Your task to perform on an android device: Empty the shopping cart on target. Search for "logitech g pro" on target, select the first entry, and add it to the cart. Image 0: 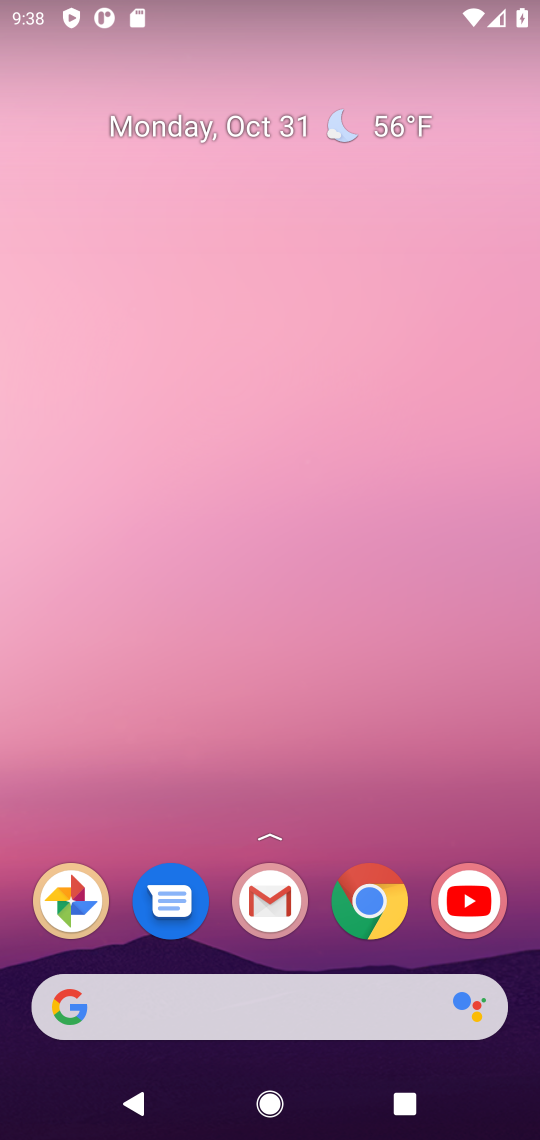
Step 0: drag from (330, 707) to (330, 245)
Your task to perform on an android device: Empty the shopping cart on target. Search for "logitech g pro" on target, select the first entry, and add it to the cart. Image 1: 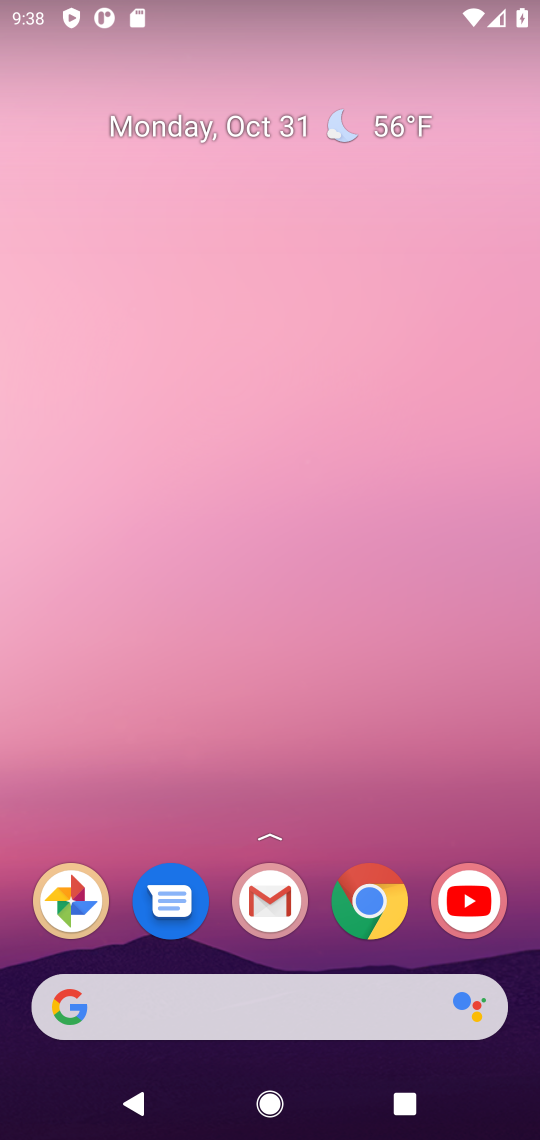
Step 1: drag from (275, 831) to (267, 108)
Your task to perform on an android device: Empty the shopping cart on target. Search for "logitech g pro" on target, select the first entry, and add it to the cart. Image 2: 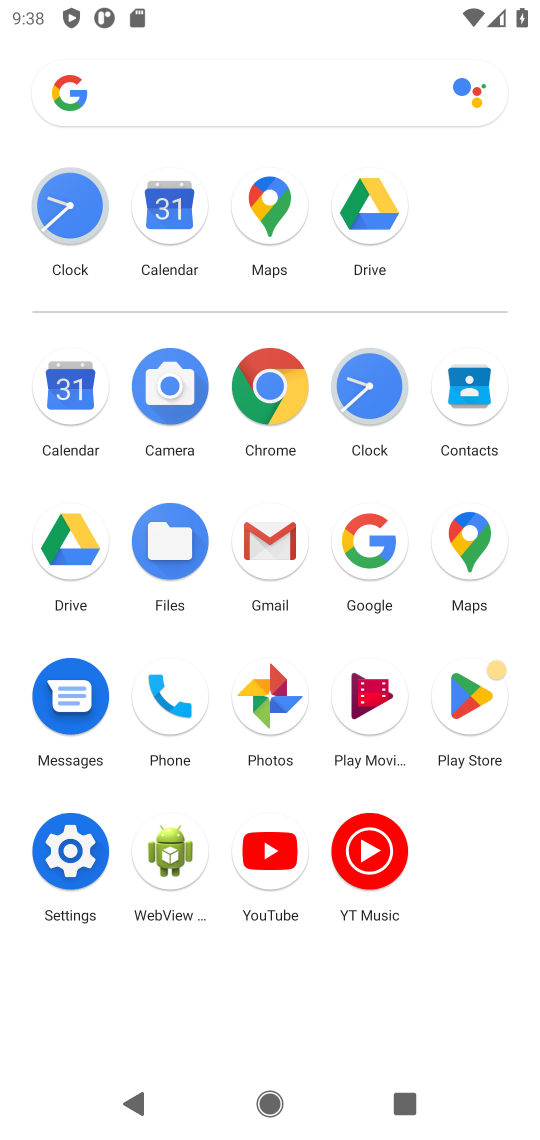
Step 2: click (355, 548)
Your task to perform on an android device: Empty the shopping cart on target. Search for "logitech g pro" on target, select the first entry, and add it to the cart. Image 3: 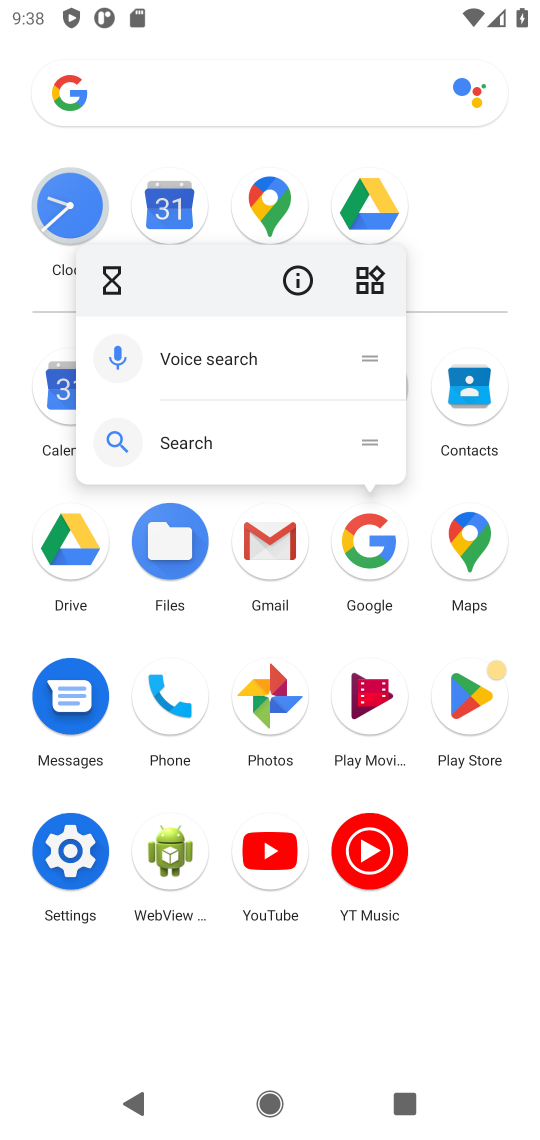
Step 3: click (357, 534)
Your task to perform on an android device: Empty the shopping cart on target. Search for "logitech g pro" on target, select the first entry, and add it to the cart. Image 4: 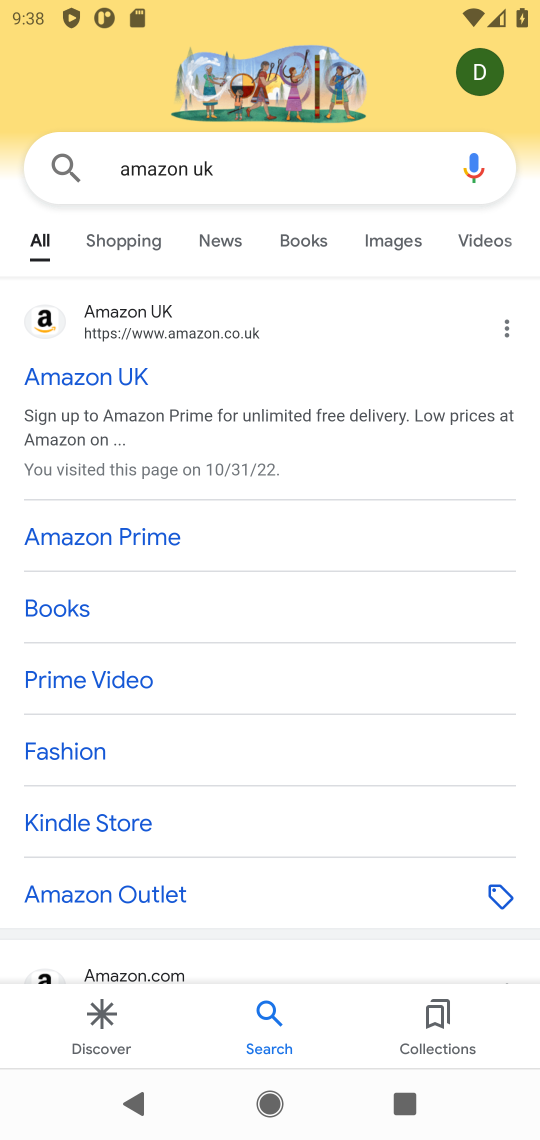
Step 4: click (357, 167)
Your task to perform on an android device: Empty the shopping cart on target. Search for "logitech g pro" on target, select the first entry, and add it to the cart. Image 5: 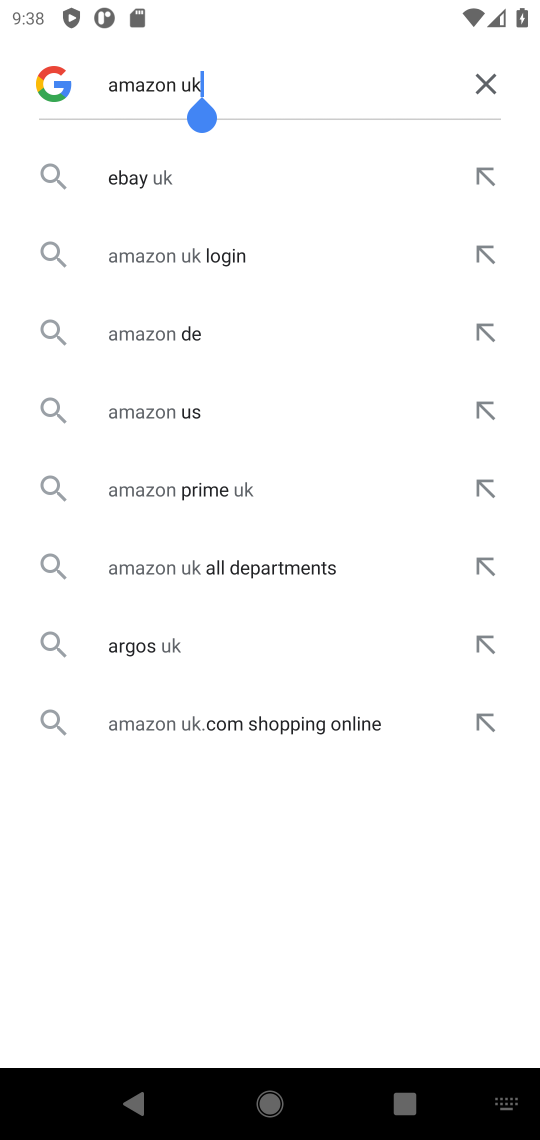
Step 5: click (480, 80)
Your task to perform on an android device: Empty the shopping cart on target. Search for "logitech g pro" on target, select the first entry, and add it to the cart. Image 6: 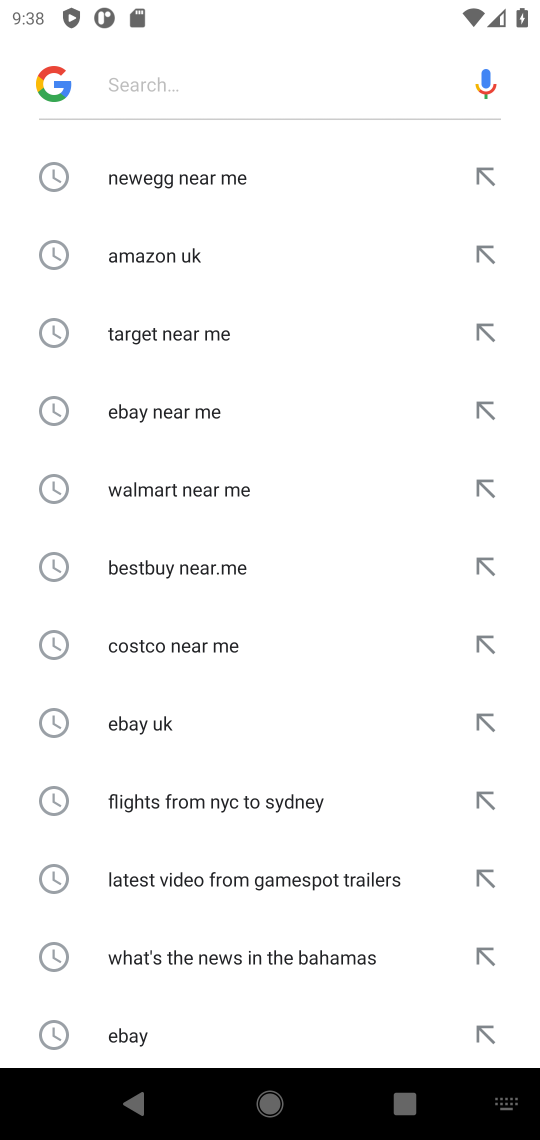
Step 6: click (138, 76)
Your task to perform on an android device: Empty the shopping cart on target. Search for "logitech g pro" on target, select the first entry, and add it to the cart. Image 7: 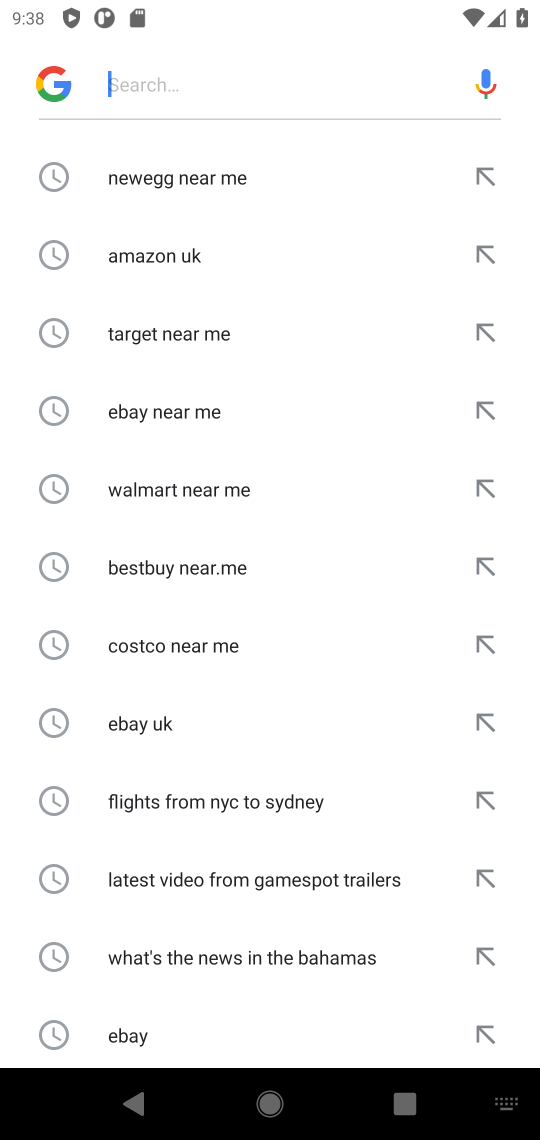
Step 7: type "target "
Your task to perform on an android device: Empty the shopping cart on target. Search for "logitech g pro" on target, select the first entry, and add it to the cart. Image 8: 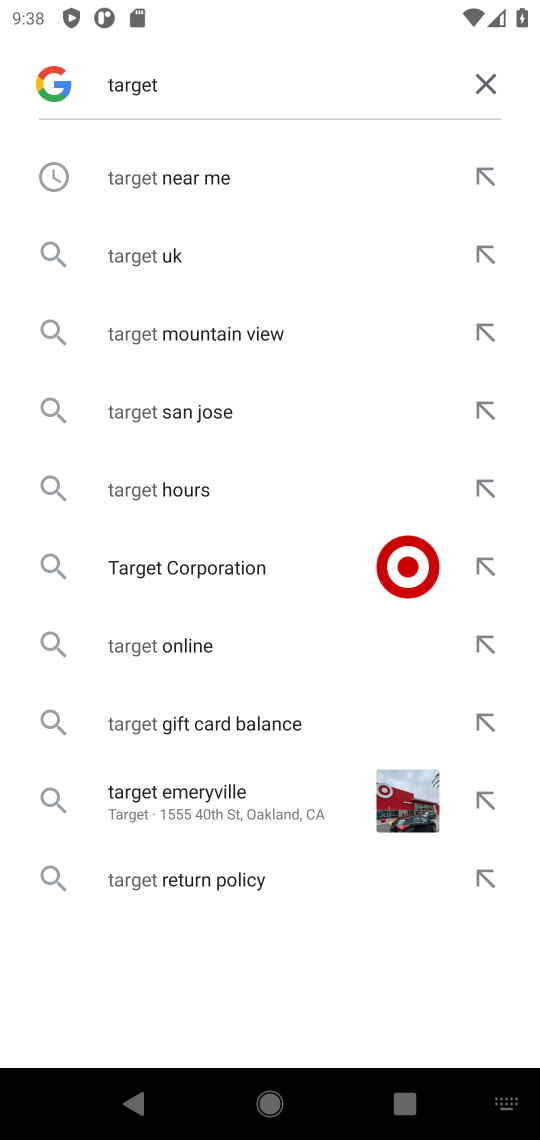
Step 8: click (164, 258)
Your task to perform on an android device: Empty the shopping cart on target. Search for "logitech g pro" on target, select the first entry, and add it to the cart. Image 9: 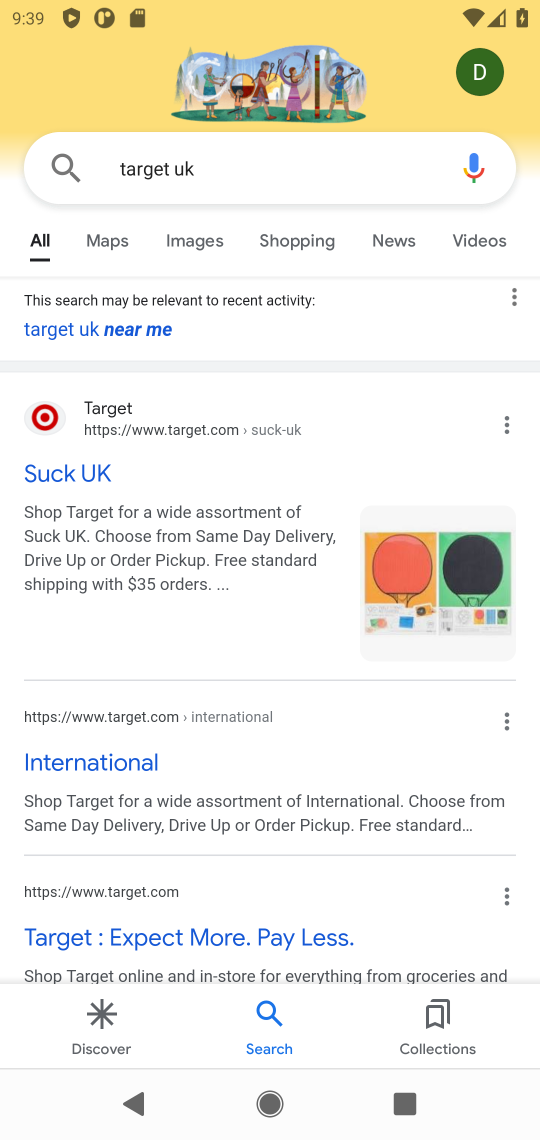
Step 9: click (43, 414)
Your task to perform on an android device: Empty the shopping cart on target. Search for "logitech g pro" on target, select the first entry, and add it to the cart. Image 10: 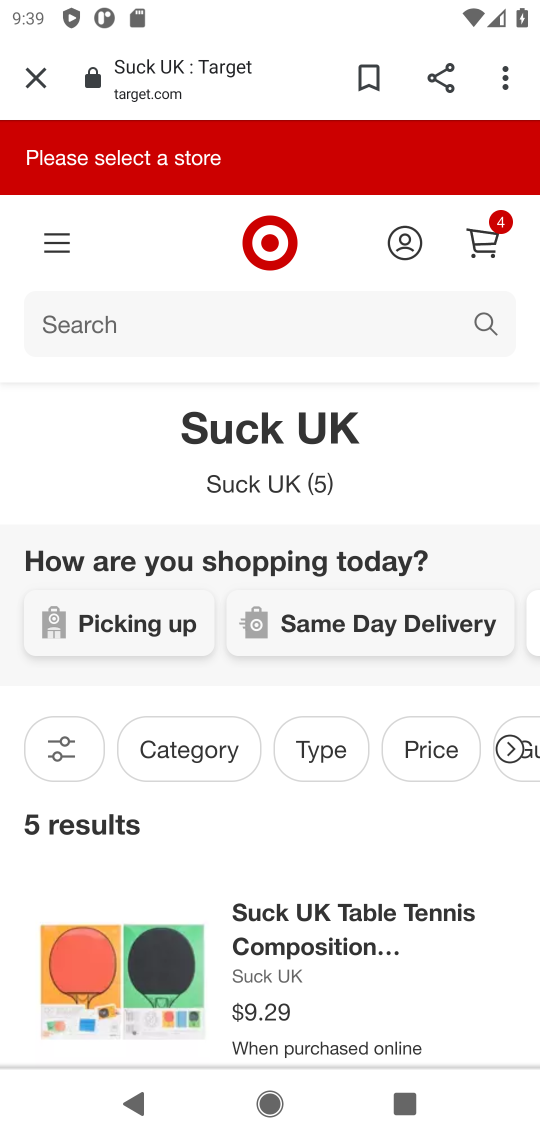
Step 10: click (155, 305)
Your task to perform on an android device: Empty the shopping cart on target. Search for "logitech g pro" on target, select the first entry, and add it to the cart. Image 11: 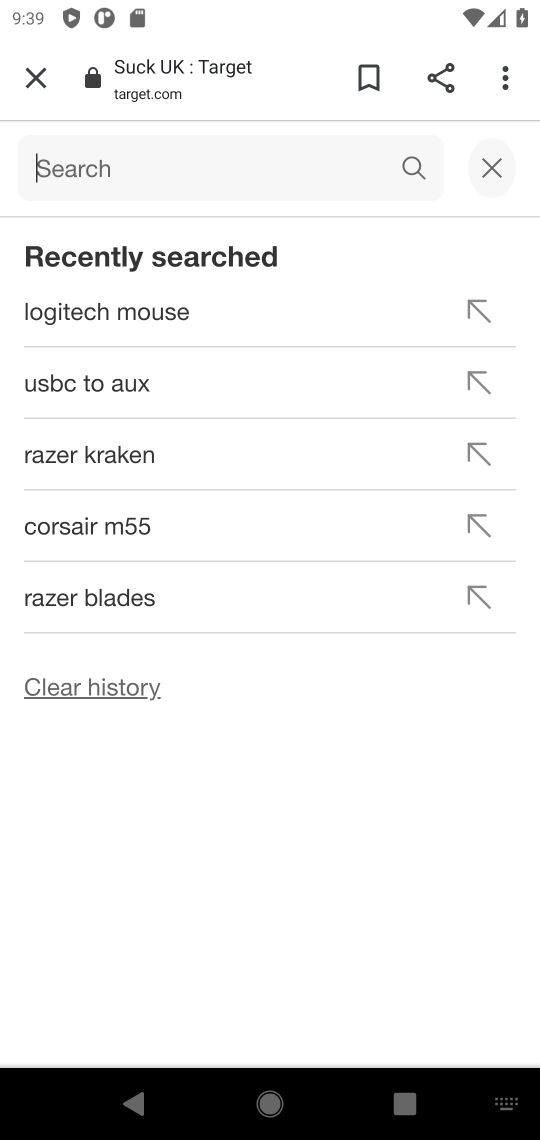
Step 11: type "logitech g pro "
Your task to perform on an android device: Empty the shopping cart on target. Search for "logitech g pro" on target, select the first entry, and add it to the cart. Image 12: 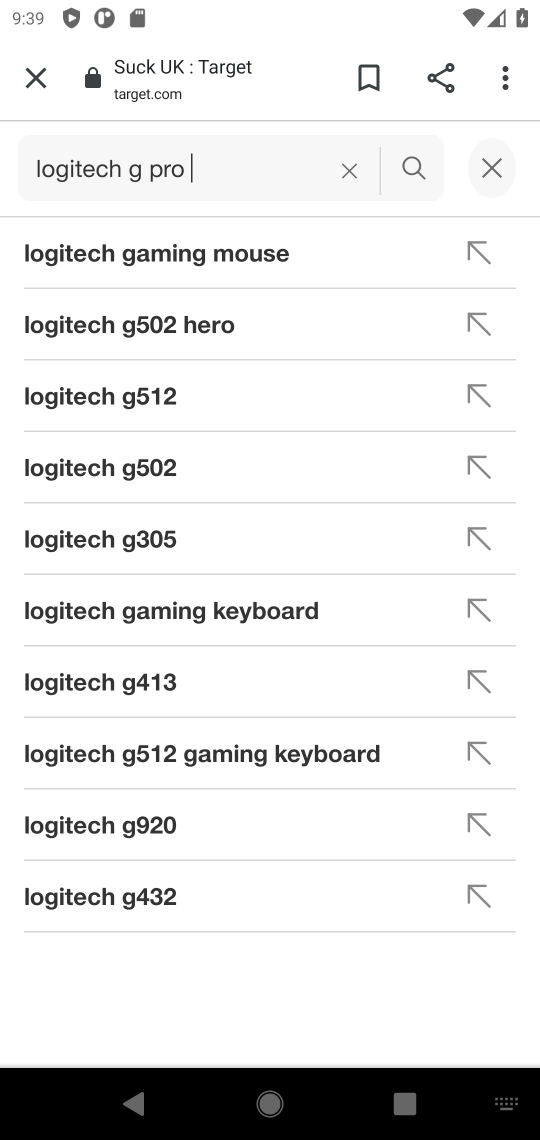
Step 12: click (169, 261)
Your task to perform on an android device: Empty the shopping cart on target. Search for "logitech g pro" on target, select the first entry, and add it to the cart. Image 13: 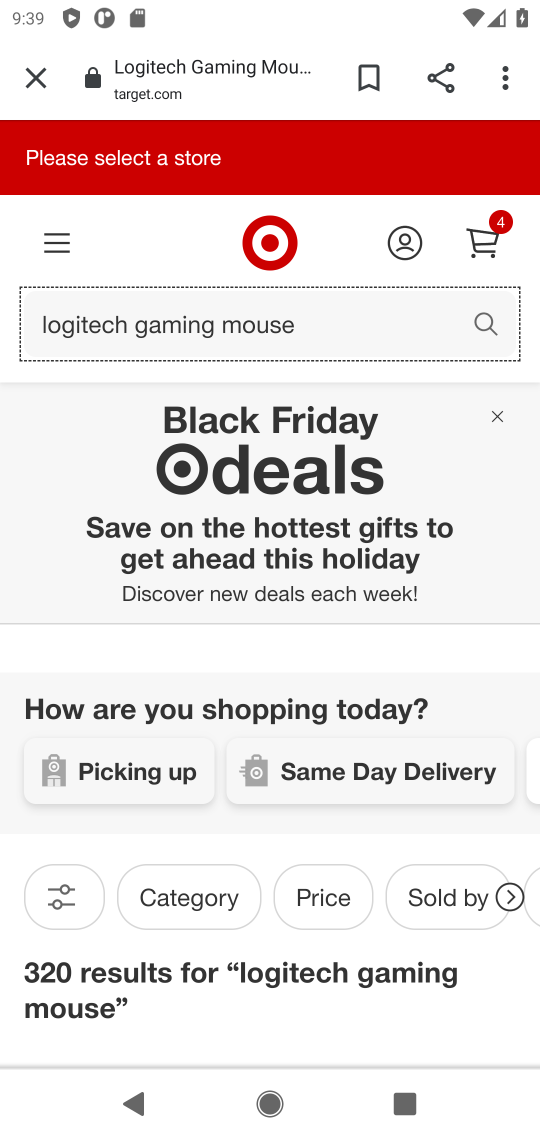
Step 13: drag from (243, 971) to (278, 329)
Your task to perform on an android device: Empty the shopping cart on target. Search for "logitech g pro" on target, select the first entry, and add it to the cart. Image 14: 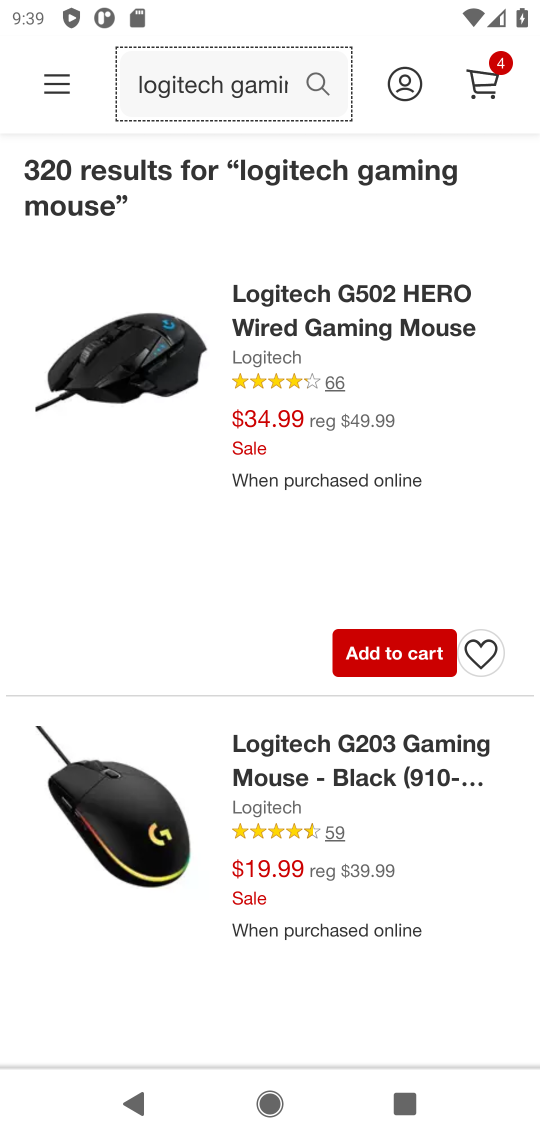
Step 14: click (379, 665)
Your task to perform on an android device: Empty the shopping cart on target. Search for "logitech g pro" on target, select the first entry, and add it to the cart. Image 15: 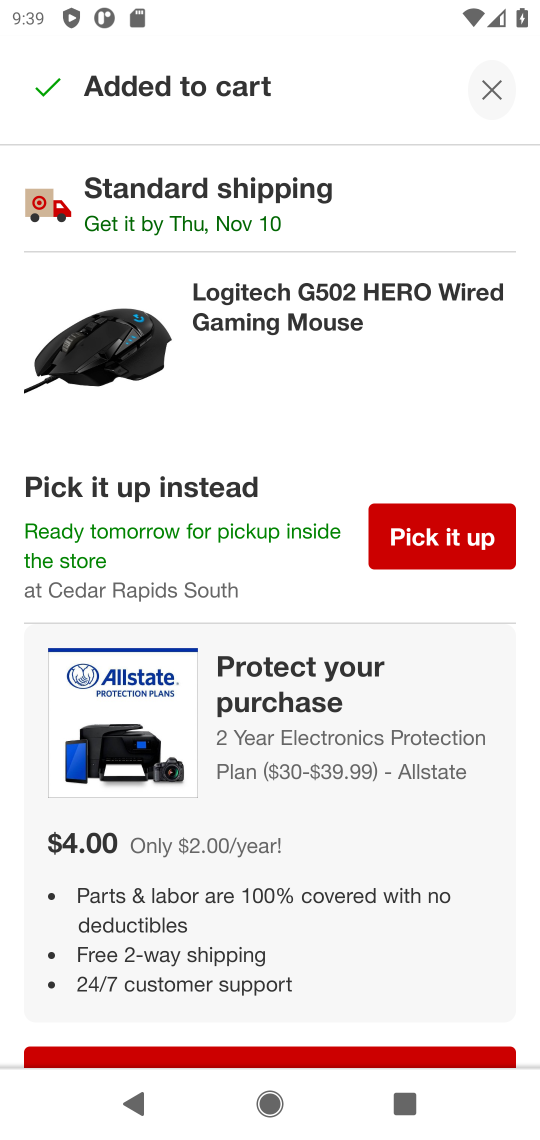
Step 15: task complete